Your task to perform on an android device: What's on my calendar today? Image 0: 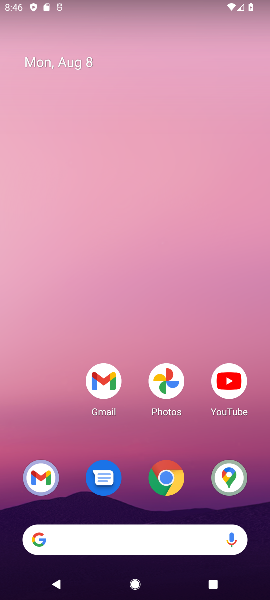
Step 0: press home button
Your task to perform on an android device: What's on my calendar today? Image 1: 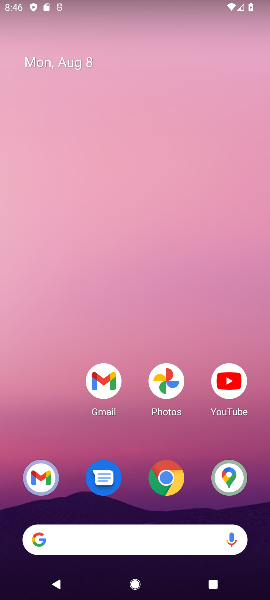
Step 1: drag from (128, 535) to (195, 123)
Your task to perform on an android device: What's on my calendar today? Image 2: 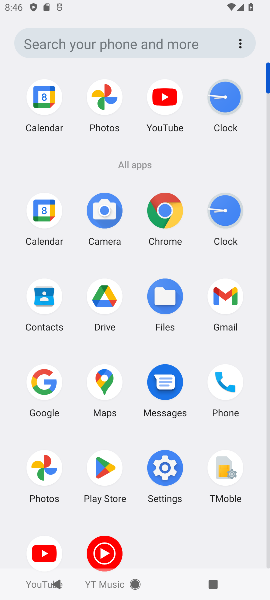
Step 2: click (44, 218)
Your task to perform on an android device: What's on my calendar today? Image 3: 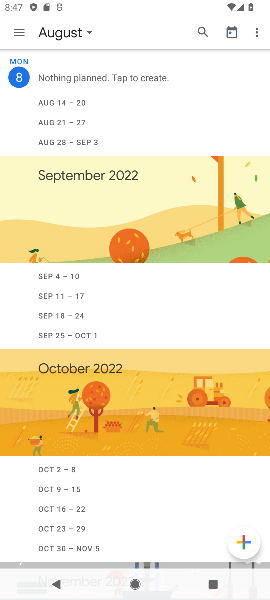
Step 3: task complete